Your task to perform on an android device: Open settings Image 0: 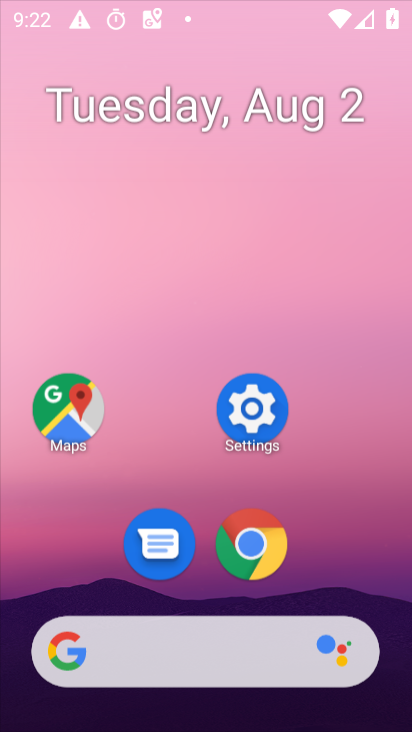
Step 0: drag from (228, 441) to (377, 2)
Your task to perform on an android device: Open settings Image 1: 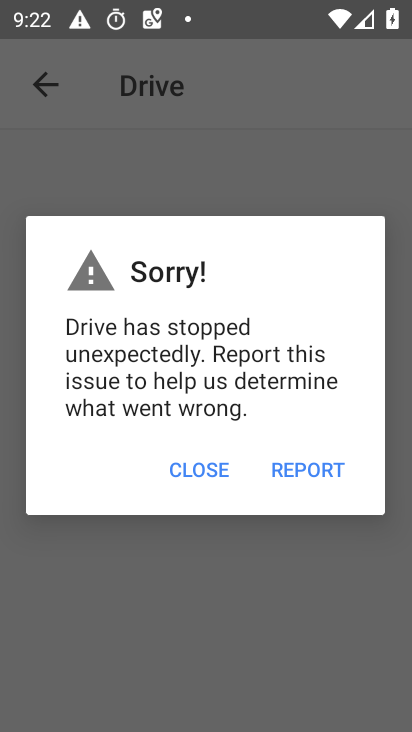
Step 1: press home button
Your task to perform on an android device: Open settings Image 2: 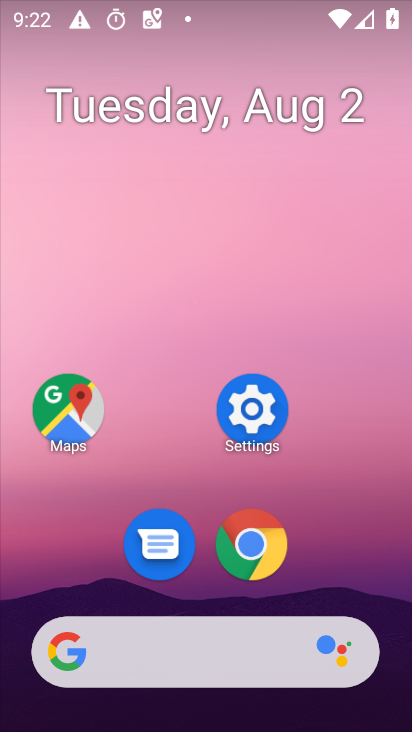
Step 2: click (250, 413)
Your task to perform on an android device: Open settings Image 3: 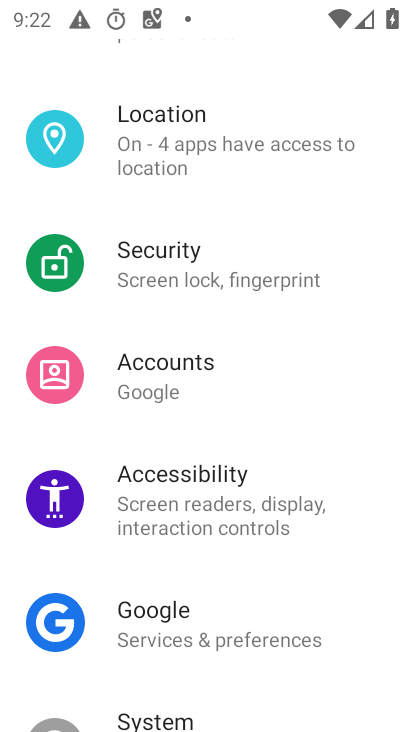
Step 3: task complete